Your task to perform on an android device: Do I have any events tomorrow? Image 0: 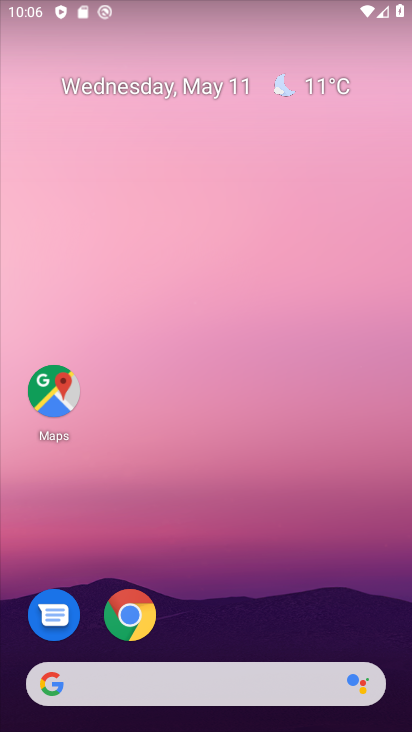
Step 0: drag from (356, 567) to (299, 89)
Your task to perform on an android device: Do I have any events tomorrow? Image 1: 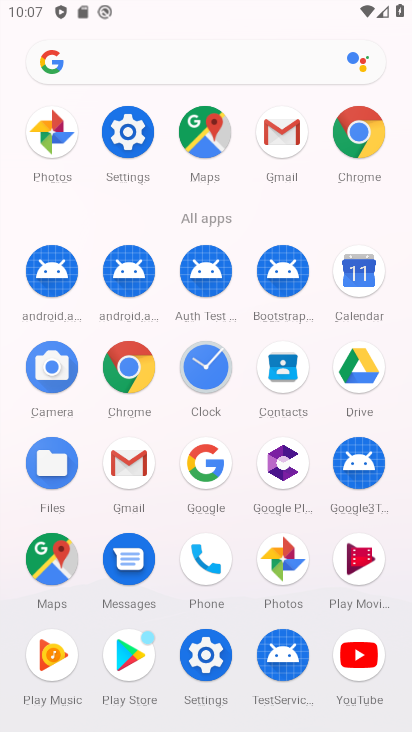
Step 1: click (361, 257)
Your task to perform on an android device: Do I have any events tomorrow? Image 2: 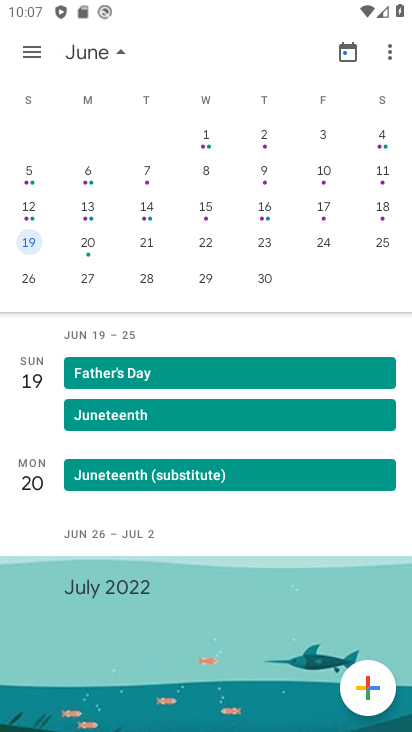
Step 2: drag from (31, 212) to (411, 223)
Your task to perform on an android device: Do I have any events tomorrow? Image 3: 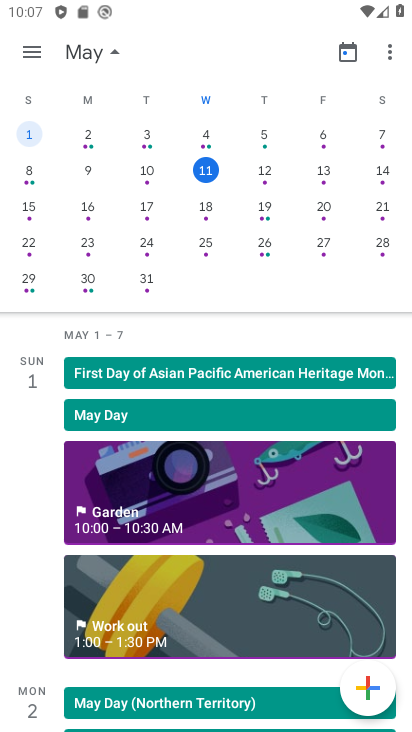
Step 3: click (261, 166)
Your task to perform on an android device: Do I have any events tomorrow? Image 4: 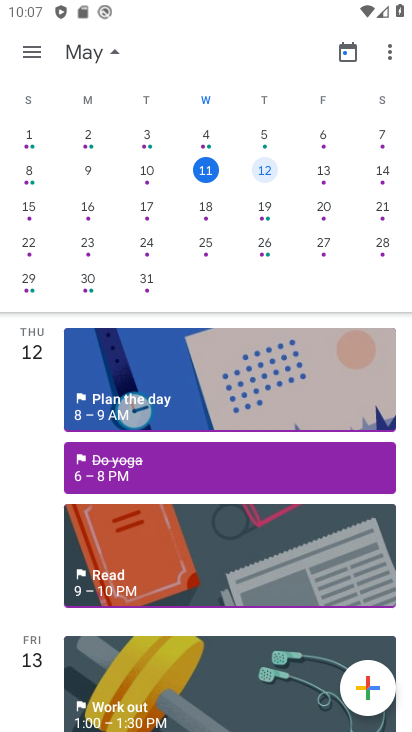
Step 4: task complete